Your task to perform on an android device: change the clock style Image 0: 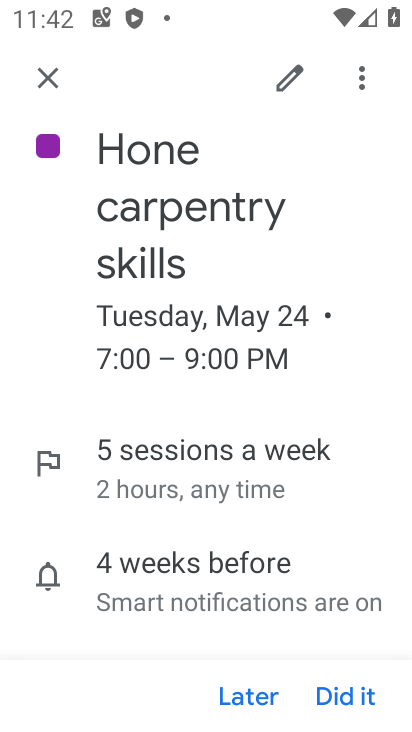
Step 0: press home button
Your task to perform on an android device: change the clock style Image 1: 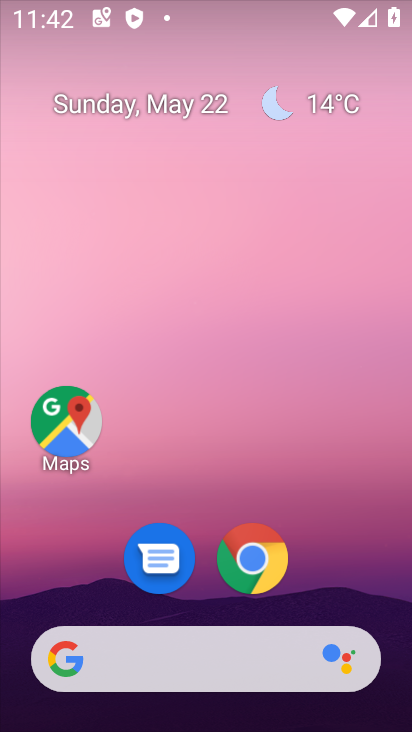
Step 1: drag from (329, 605) to (410, 419)
Your task to perform on an android device: change the clock style Image 2: 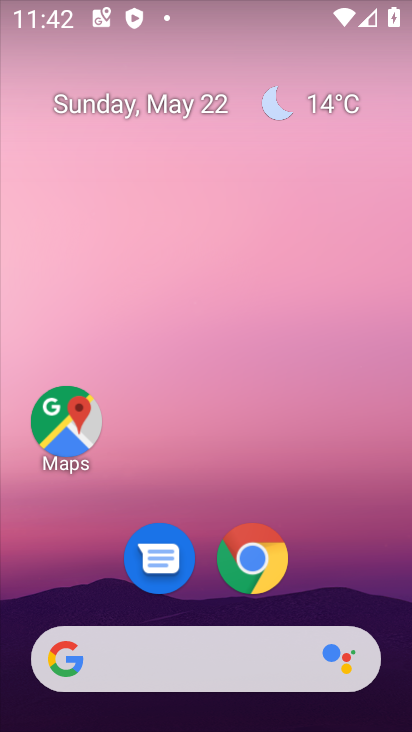
Step 2: drag from (325, 554) to (368, 5)
Your task to perform on an android device: change the clock style Image 3: 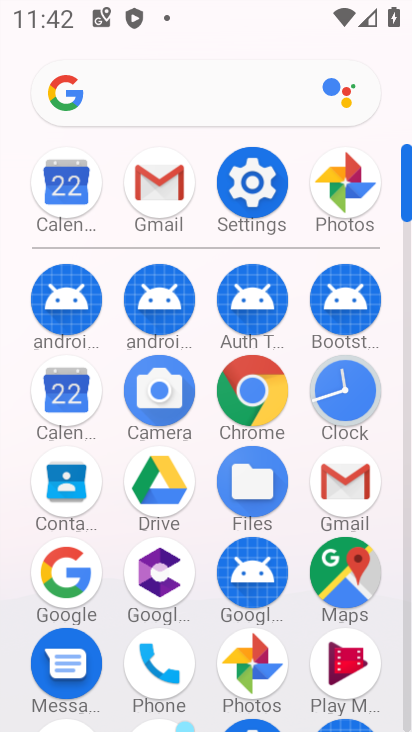
Step 3: click (340, 390)
Your task to perform on an android device: change the clock style Image 4: 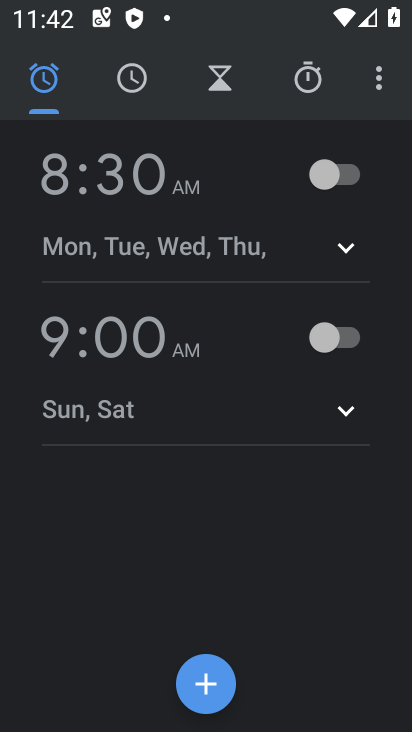
Step 4: click (380, 81)
Your task to perform on an android device: change the clock style Image 5: 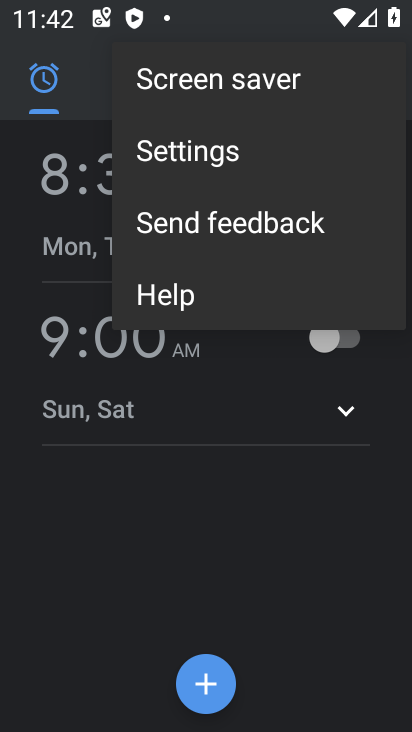
Step 5: click (224, 156)
Your task to perform on an android device: change the clock style Image 6: 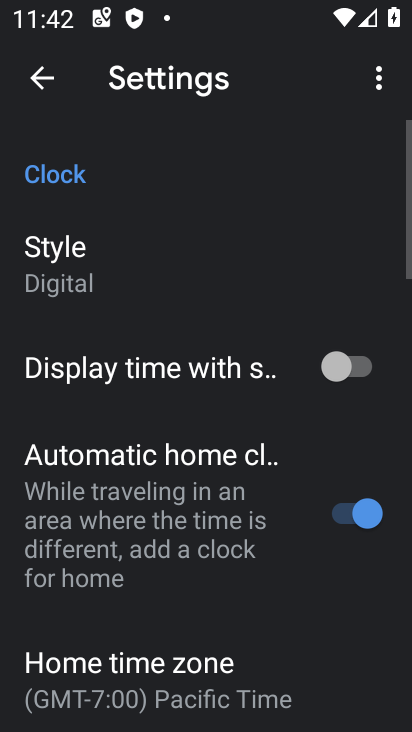
Step 6: click (67, 275)
Your task to perform on an android device: change the clock style Image 7: 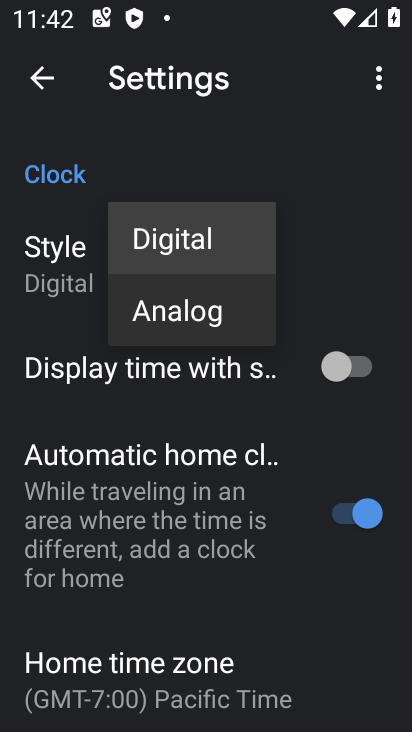
Step 7: click (141, 310)
Your task to perform on an android device: change the clock style Image 8: 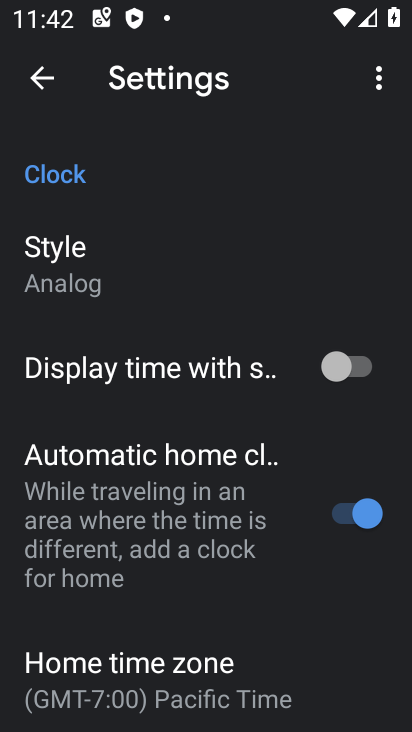
Step 8: task complete